Your task to perform on an android device: open device folders in google photos Image 0: 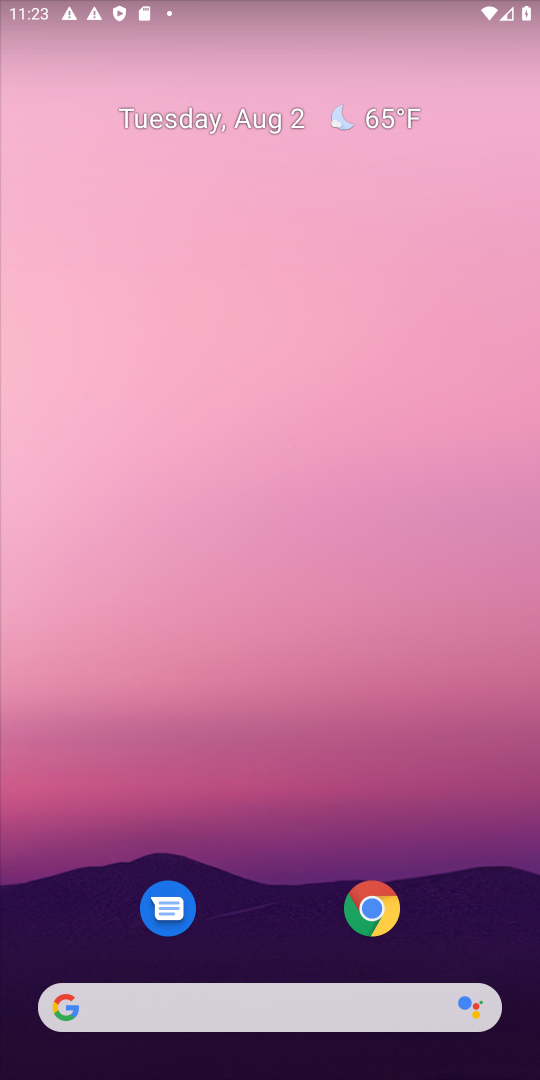
Step 0: press home button
Your task to perform on an android device: open device folders in google photos Image 1: 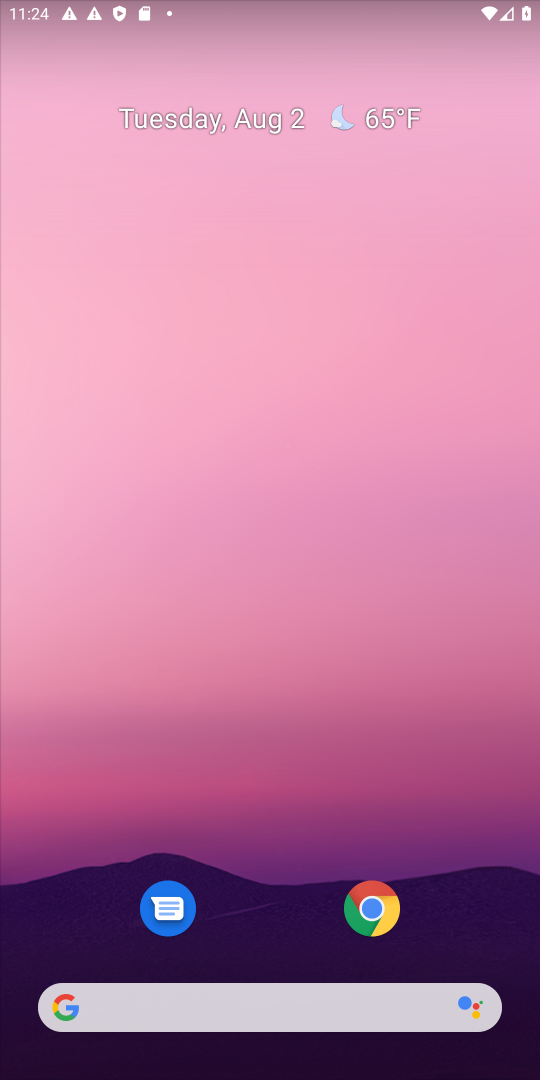
Step 1: drag from (255, 946) to (361, 87)
Your task to perform on an android device: open device folders in google photos Image 2: 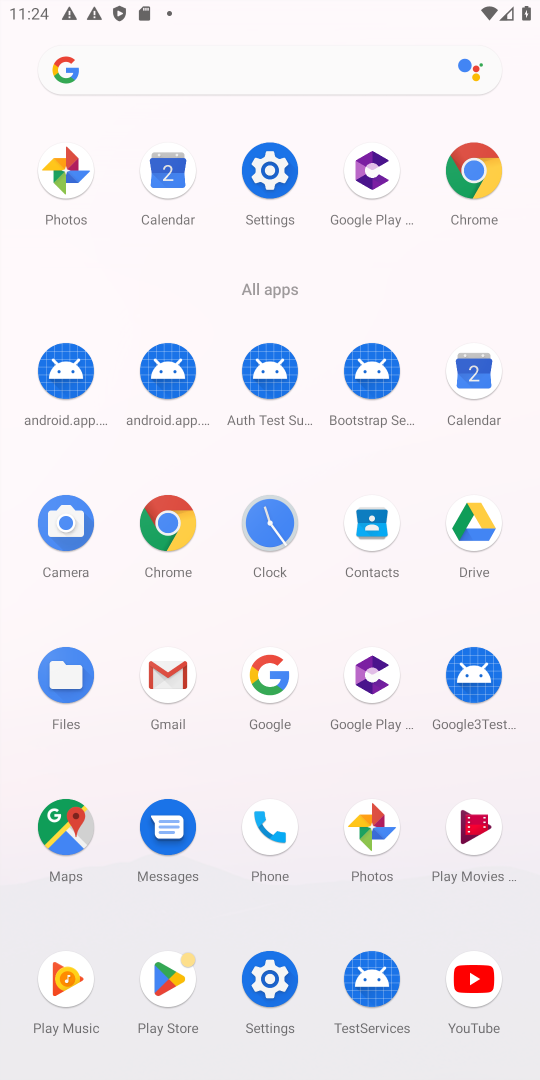
Step 2: click (376, 824)
Your task to perform on an android device: open device folders in google photos Image 3: 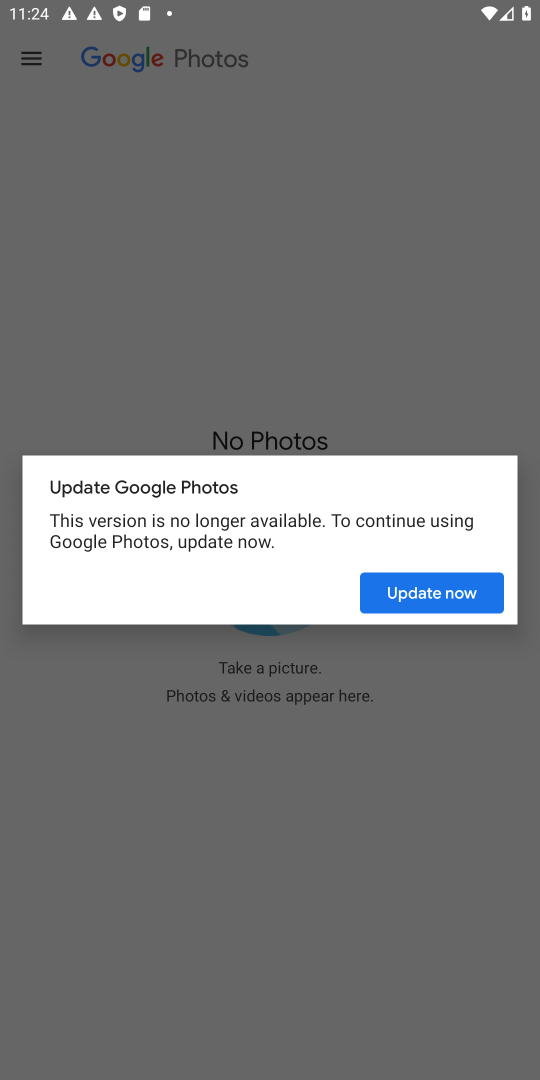
Step 3: click (440, 594)
Your task to perform on an android device: open device folders in google photos Image 4: 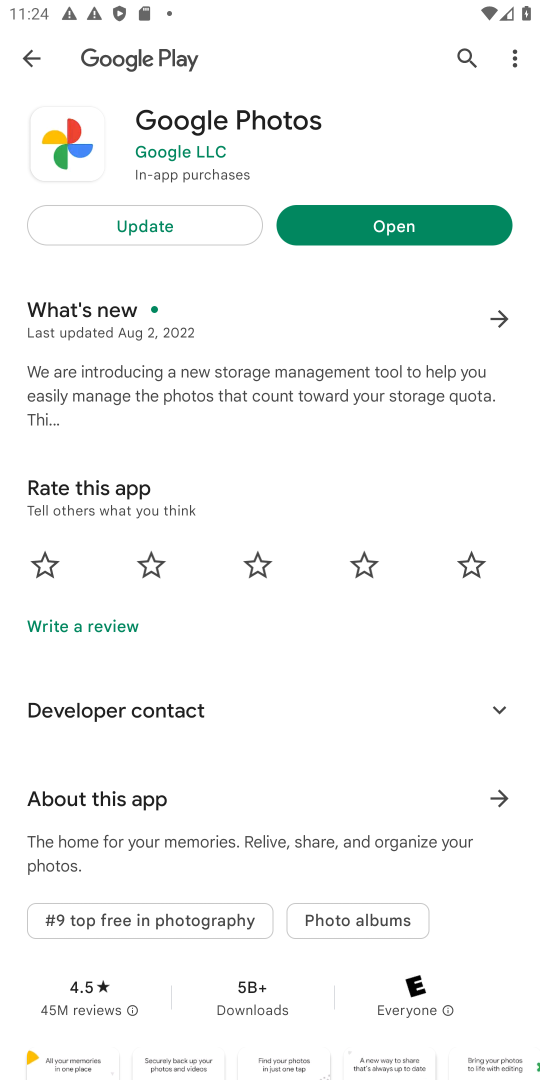
Step 4: click (141, 235)
Your task to perform on an android device: open device folders in google photos Image 5: 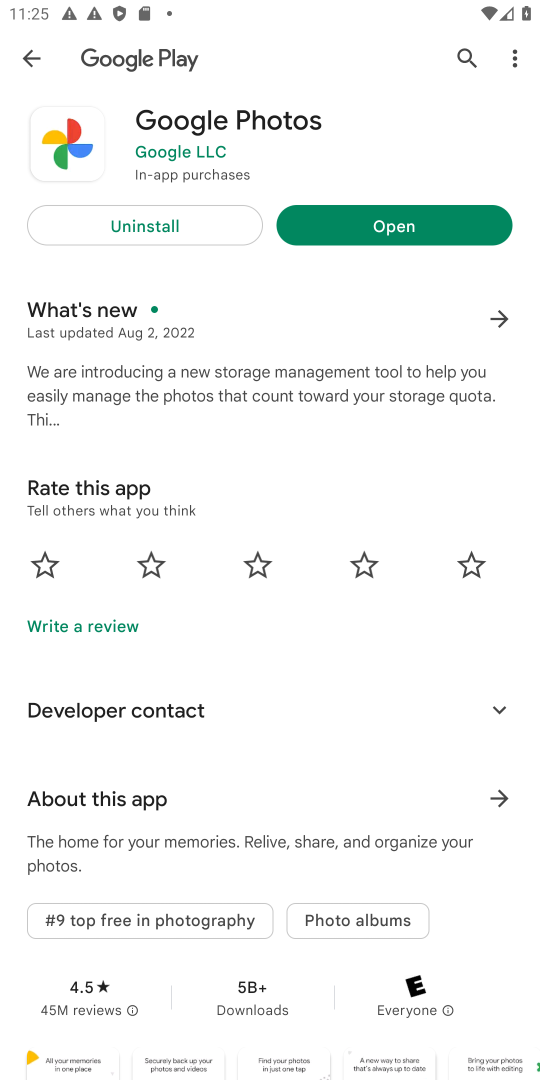
Step 5: click (381, 230)
Your task to perform on an android device: open device folders in google photos Image 6: 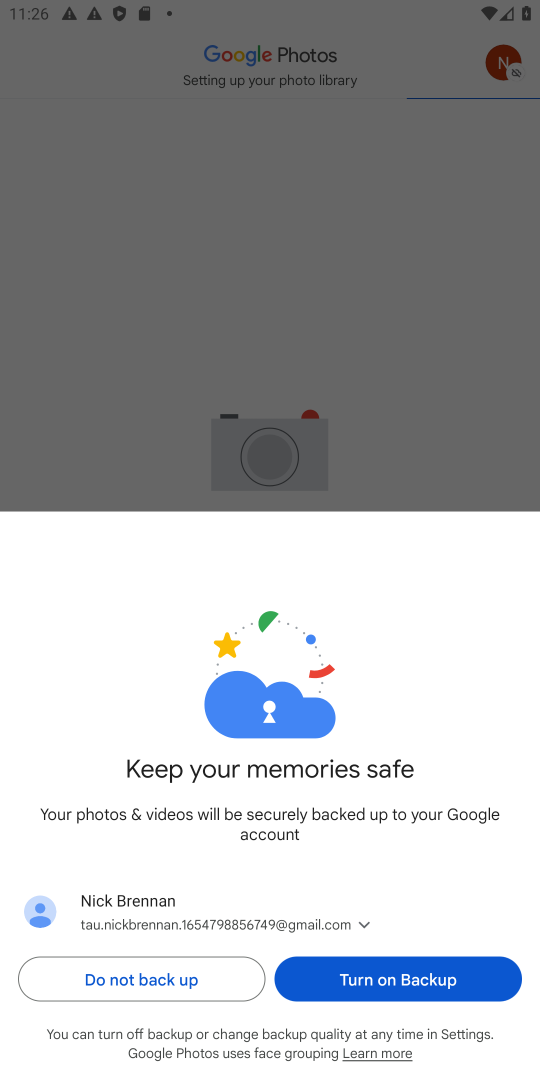
Step 6: click (413, 969)
Your task to perform on an android device: open device folders in google photos Image 7: 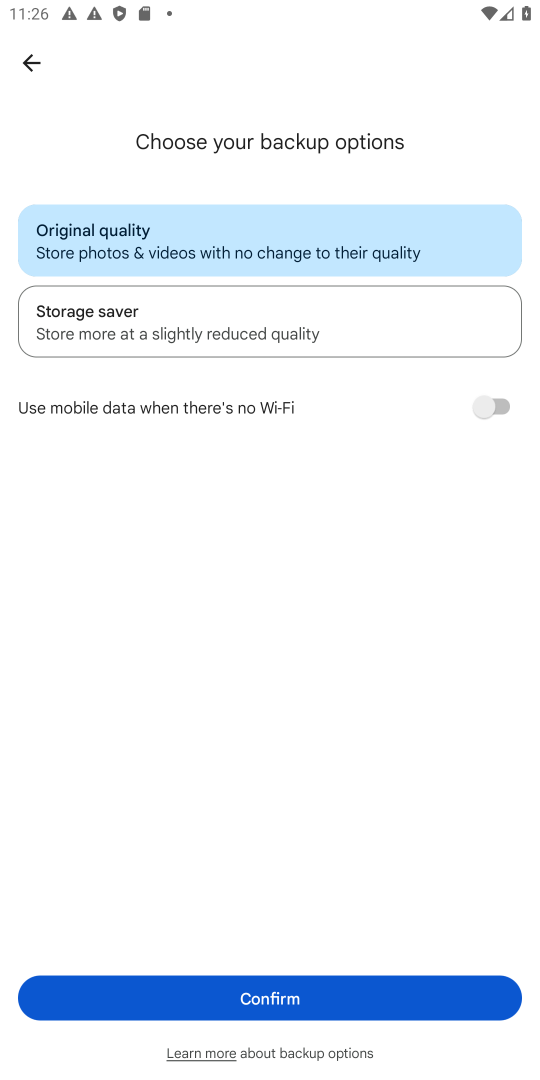
Step 7: click (200, 329)
Your task to perform on an android device: open device folders in google photos Image 8: 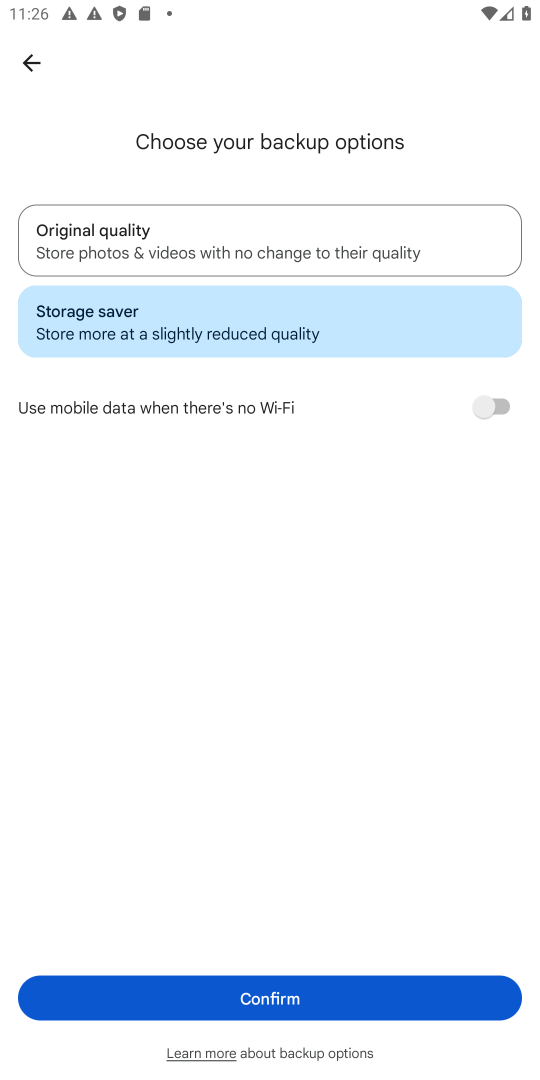
Step 8: click (262, 999)
Your task to perform on an android device: open device folders in google photos Image 9: 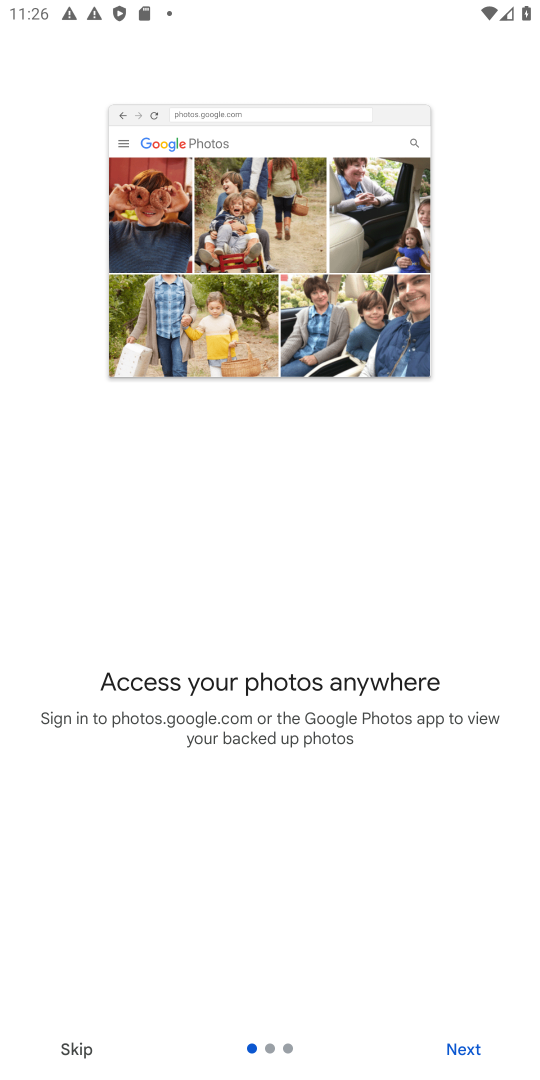
Step 9: click (70, 1047)
Your task to perform on an android device: open device folders in google photos Image 10: 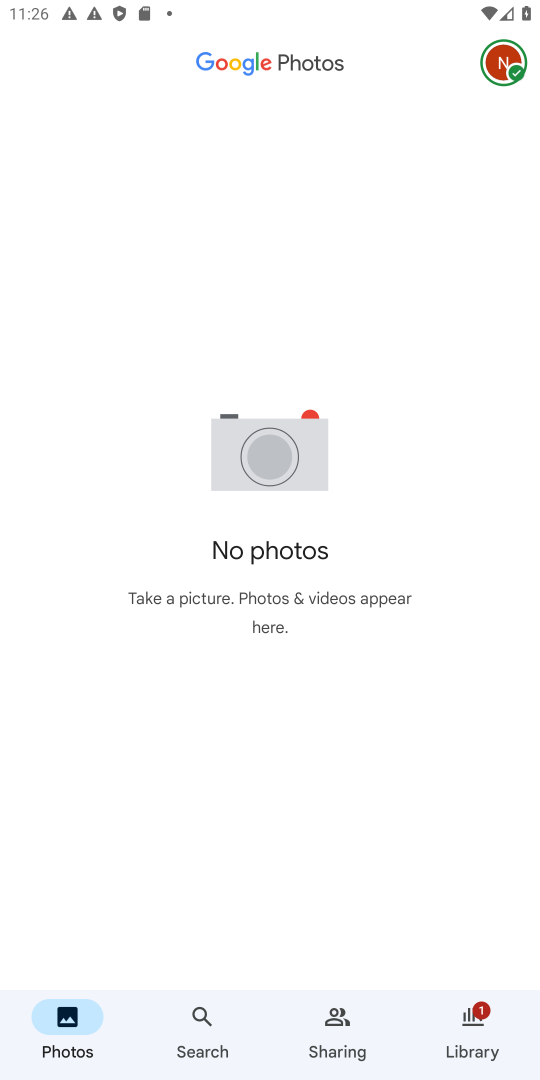
Step 10: click (199, 1009)
Your task to perform on an android device: open device folders in google photos Image 11: 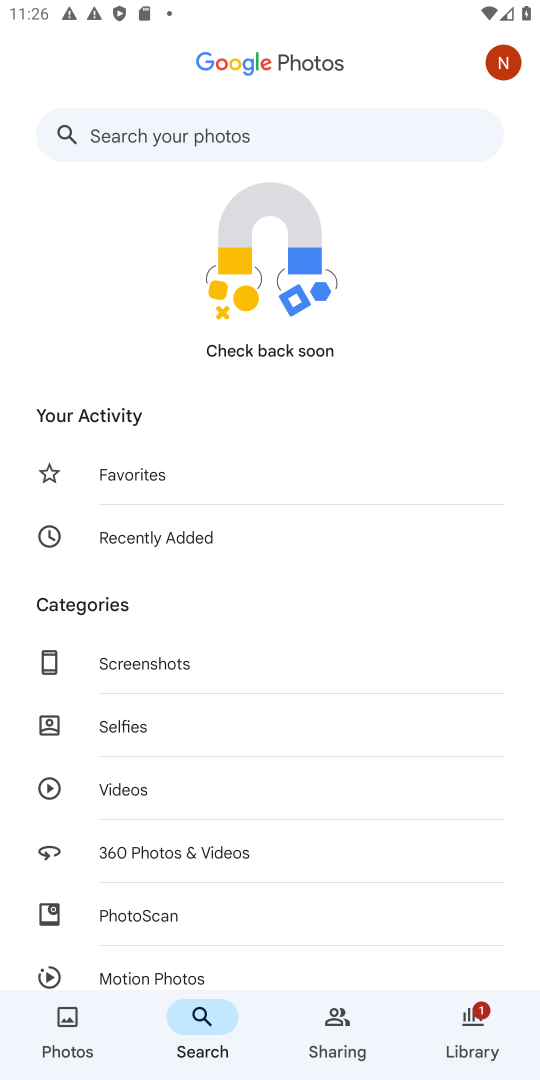
Step 11: click (106, 145)
Your task to perform on an android device: open device folders in google photos Image 12: 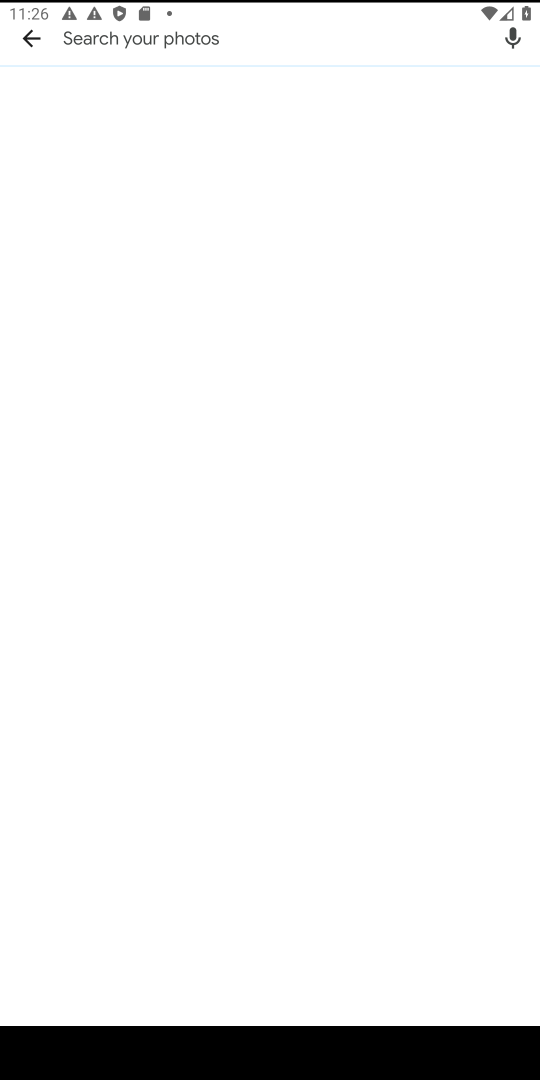
Step 12: type "device"
Your task to perform on an android device: open device folders in google photos Image 13: 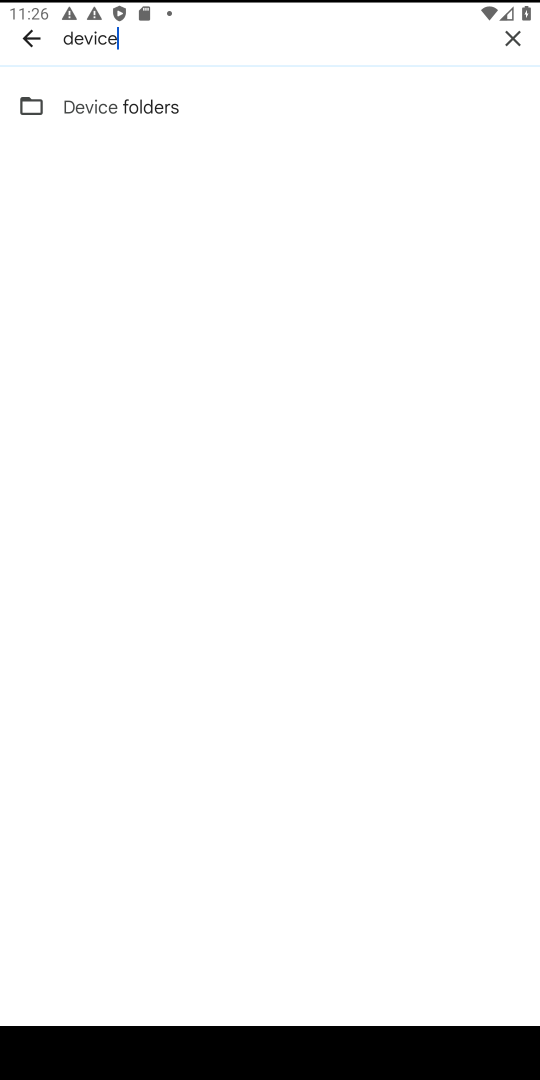
Step 13: click (84, 111)
Your task to perform on an android device: open device folders in google photos Image 14: 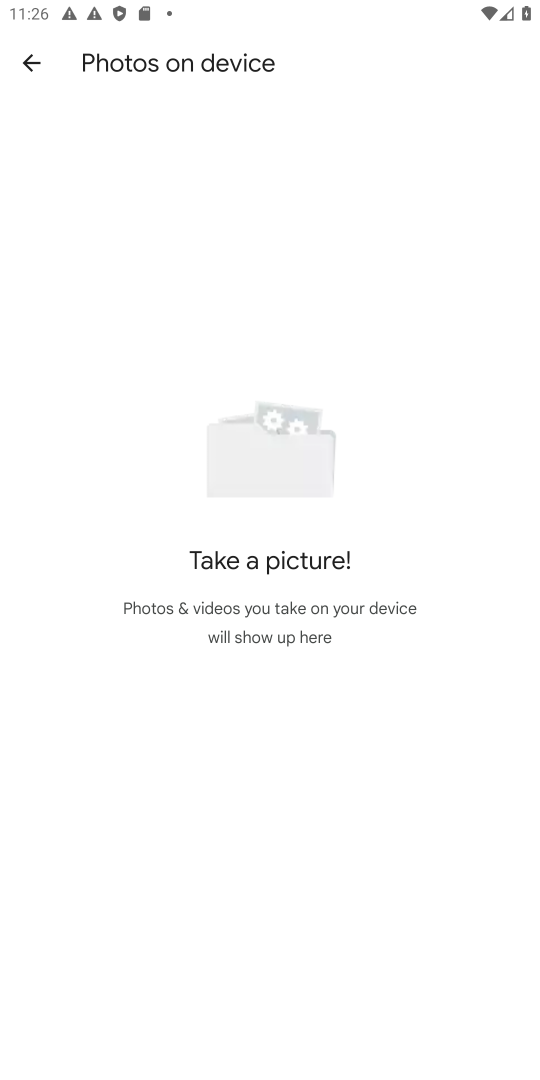
Step 14: task complete